Your task to perform on an android device: delete location history Image 0: 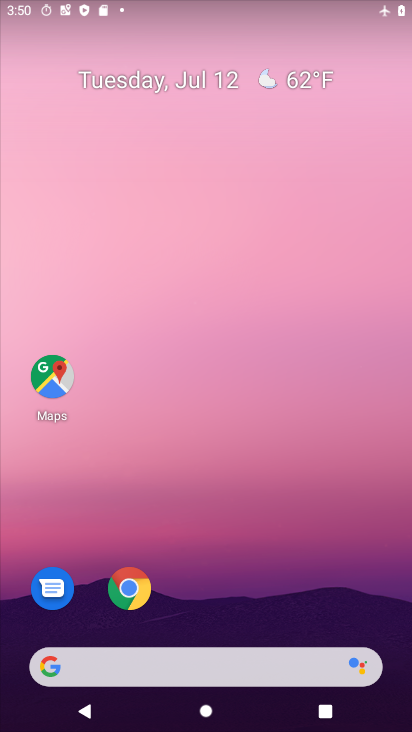
Step 0: drag from (197, 386) to (220, 6)
Your task to perform on an android device: delete location history Image 1: 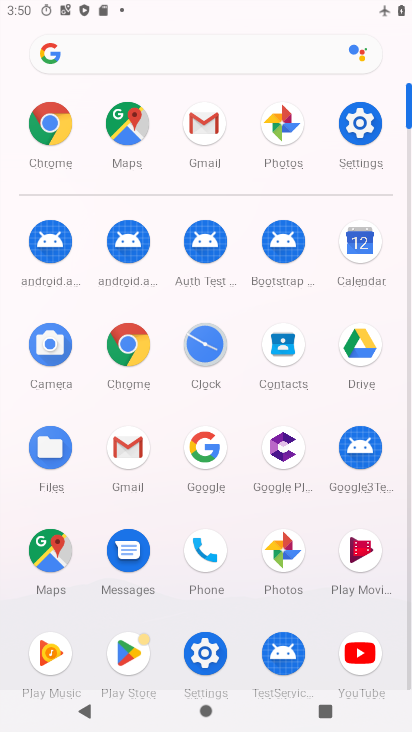
Step 1: click (52, 556)
Your task to perform on an android device: delete location history Image 2: 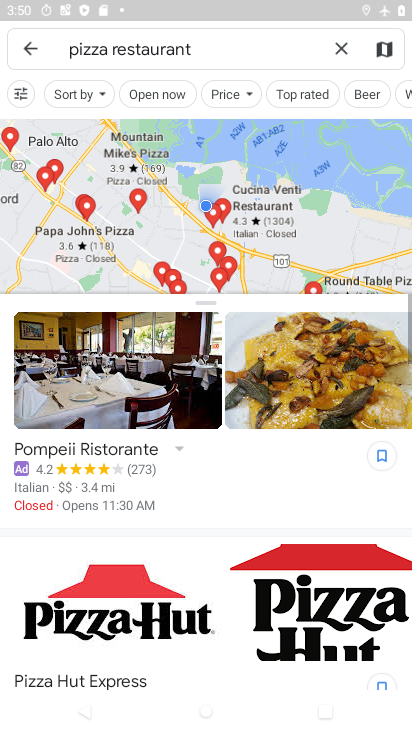
Step 2: click (25, 48)
Your task to perform on an android device: delete location history Image 3: 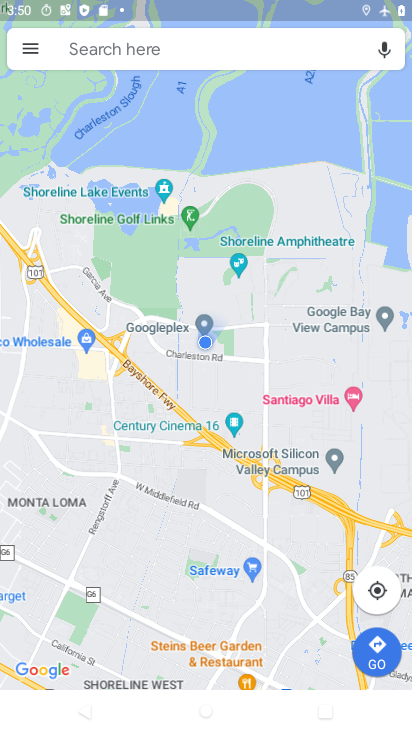
Step 3: click (26, 48)
Your task to perform on an android device: delete location history Image 4: 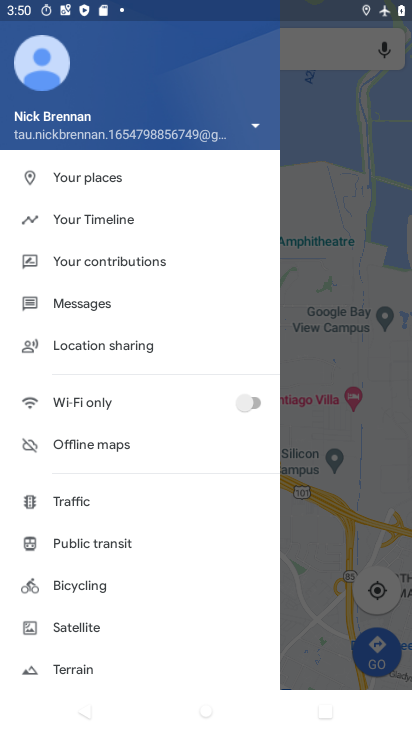
Step 4: click (120, 225)
Your task to perform on an android device: delete location history Image 5: 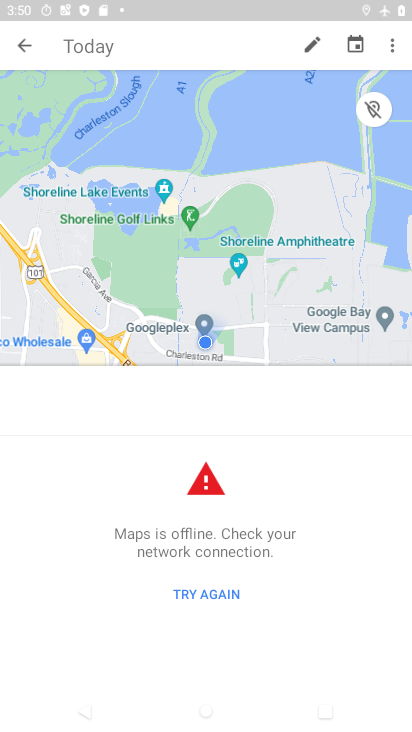
Step 5: click (391, 44)
Your task to perform on an android device: delete location history Image 6: 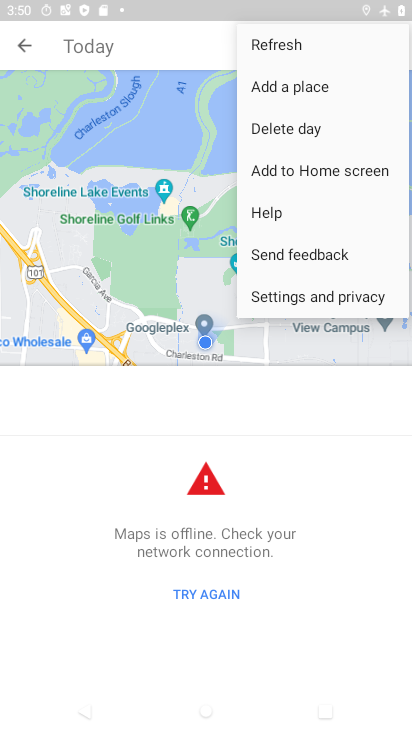
Step 6: click (284, 292)
Your task to perform on an android device: delete location history Image 7: 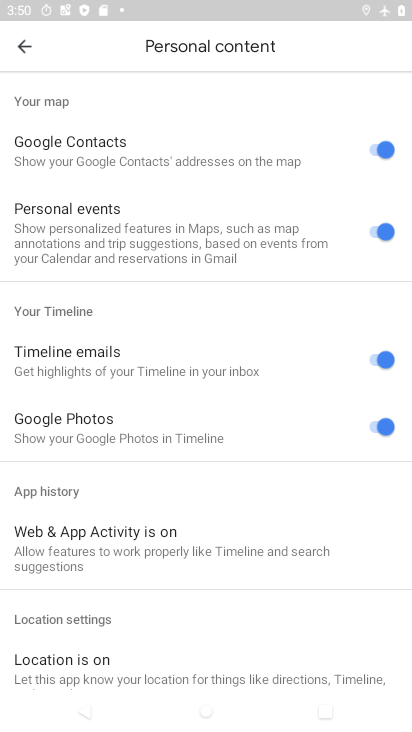
Step 7: drag from (147, 515) to (153, 318)
Your task to perform on an android device: delete location history Image 8: 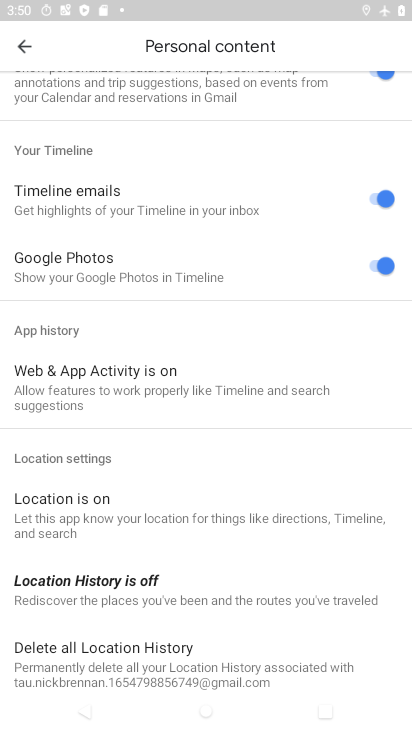
Step 8: drag from (140, 625) to (157, 485)
Your task to perform on an android device: delete location history Image 9: 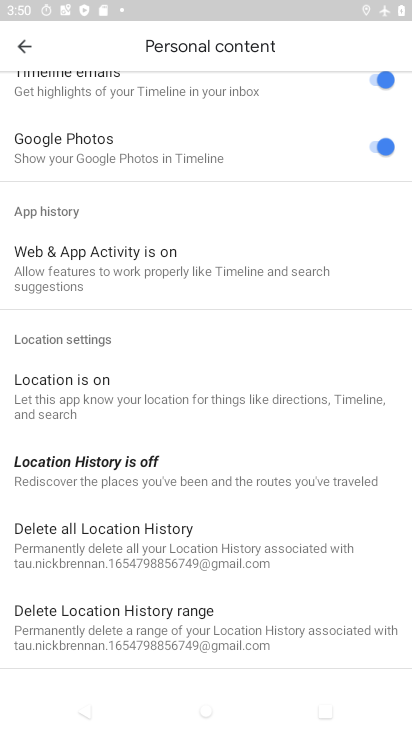
Step 9: click (158, 567)
Your task to perform on an android device: delete location history Image 10: 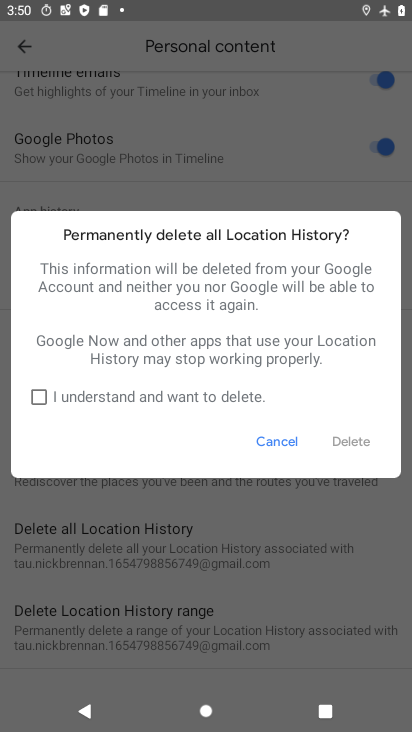
Step 10: click (181, 398)
Your task to perform on an android device: delete location history Image 11: 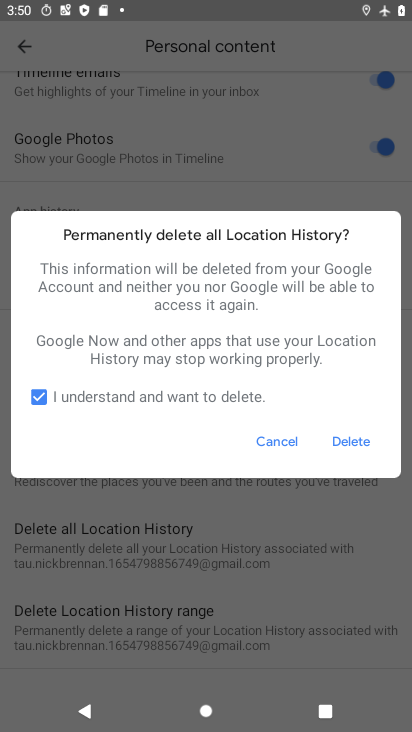
Step 11: click (356, 437)
Your task to perform on an android device: delete location history Image 12: 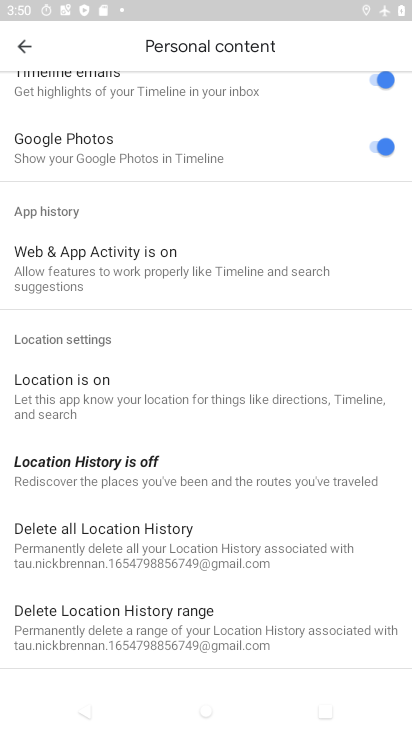
Step 12: task complete